Your task to perform on an android device: Clear all items from cart on walmart. Add logitech g pro to the cart on walmart, then select checkout. Image 0: 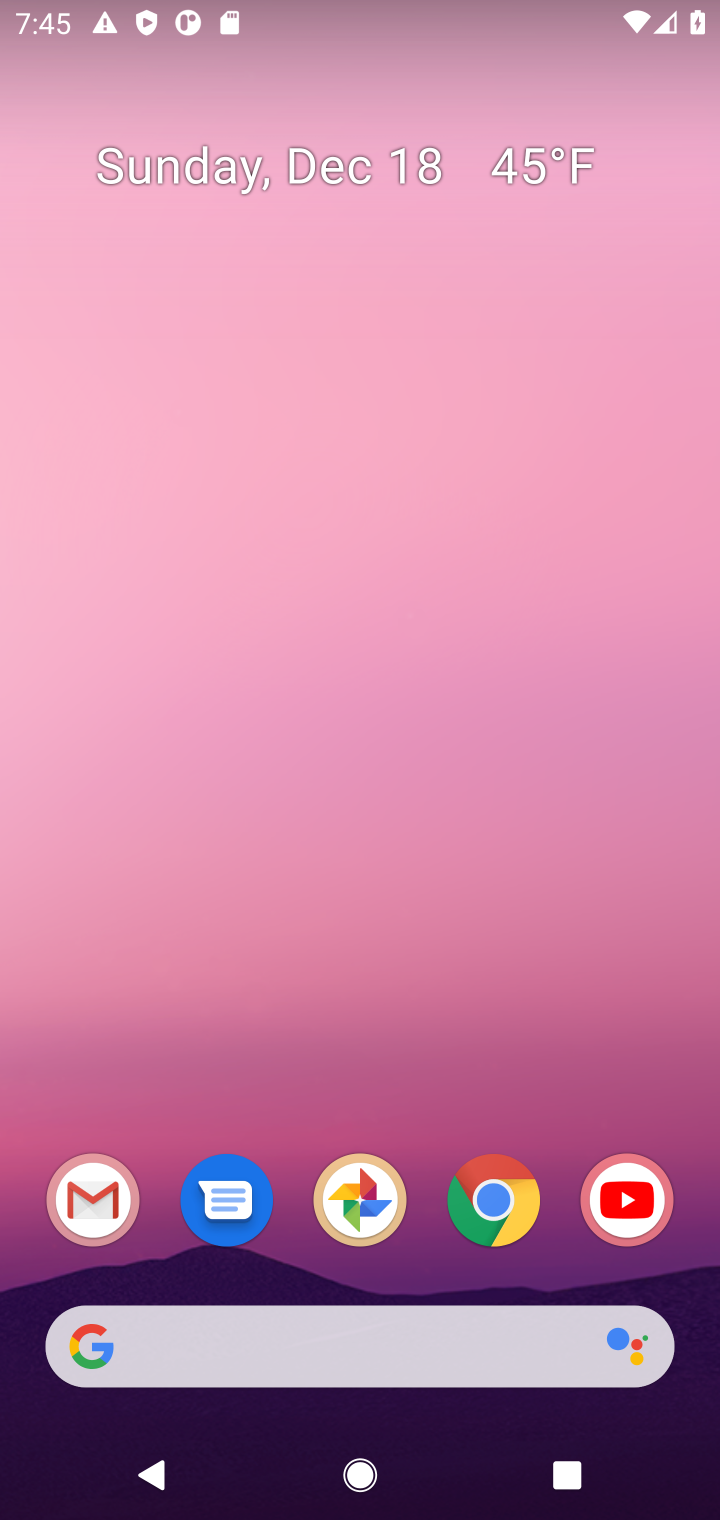
Step 0: click (511, 1207)
Your task to perform on an android device: Clear all items from cart on walmart. Add logitech g pro to the cart on walmart, then select checkout. Image 1: 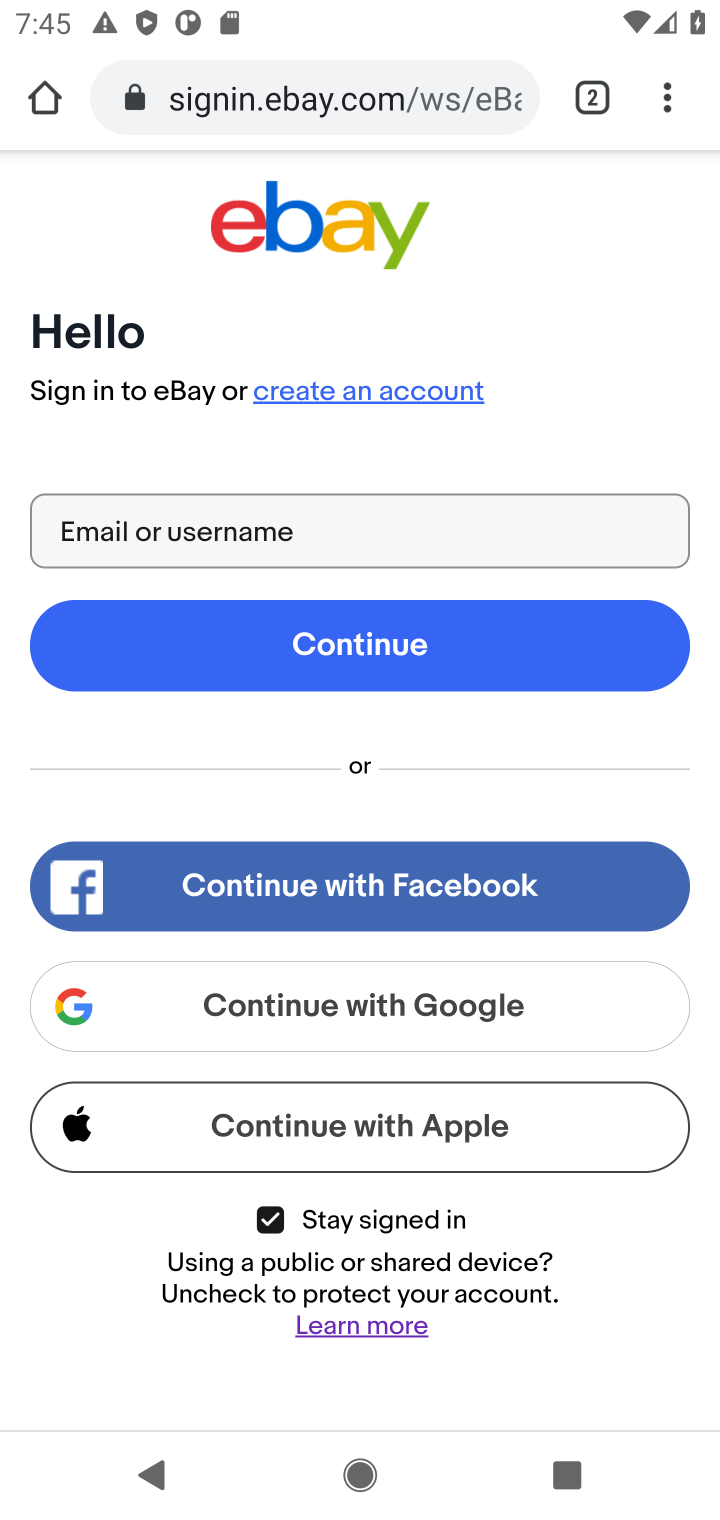
Step 1: click (237, 110)
Your task to perform on an android device: Clear all items from cart on walmart. Add logitech g pro to the cart on walmart, then select checkout. Image 2: 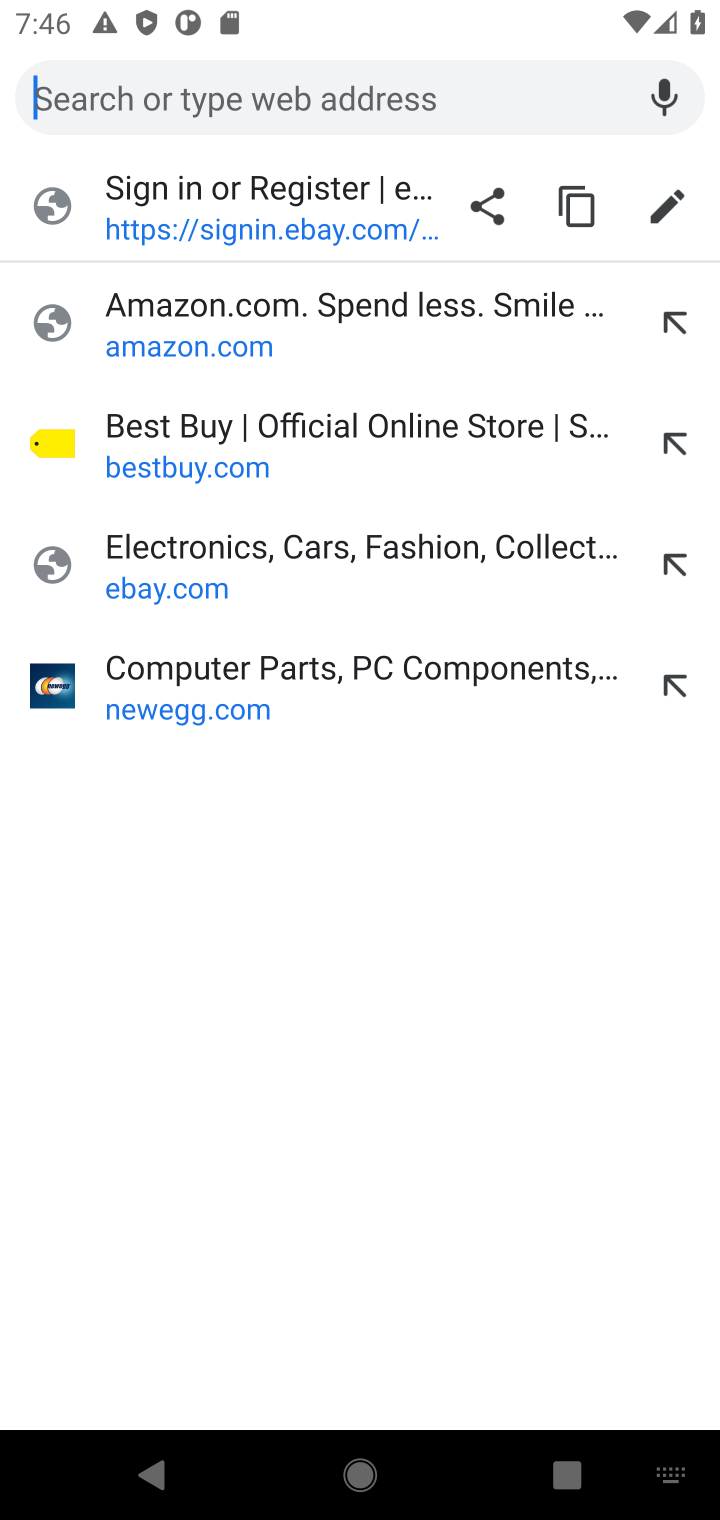
Step 2: type "walmart.com"
Your task to perform on an android device: Clear all items from cart on walmart. Add logitech g pro to the cart on walmart, then select checkout. Image 3: 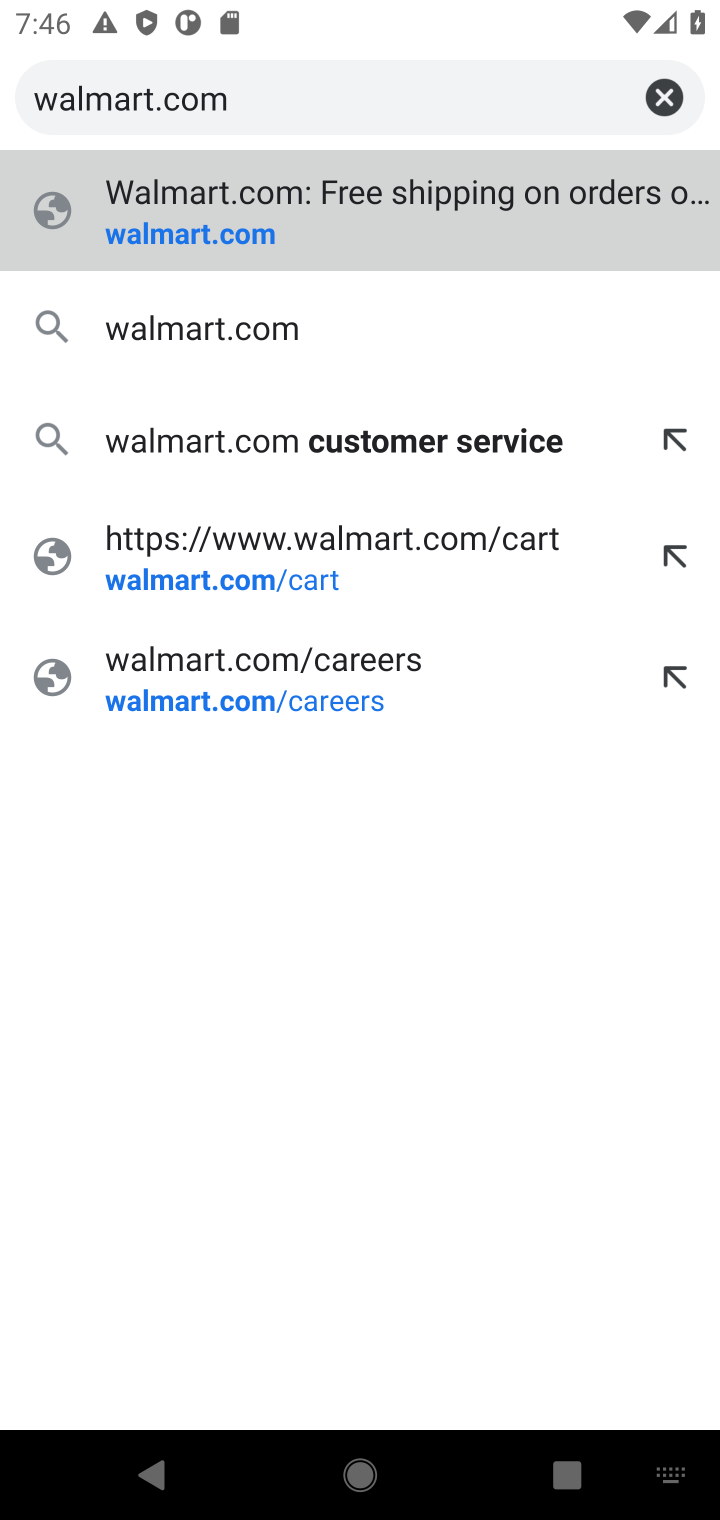
Step 3: click (200, 222)
Your task to perform on an android device: Clear all items from cart on walmart. Add logitech g pro to the cart on walmart, then select checkout. Image 4: 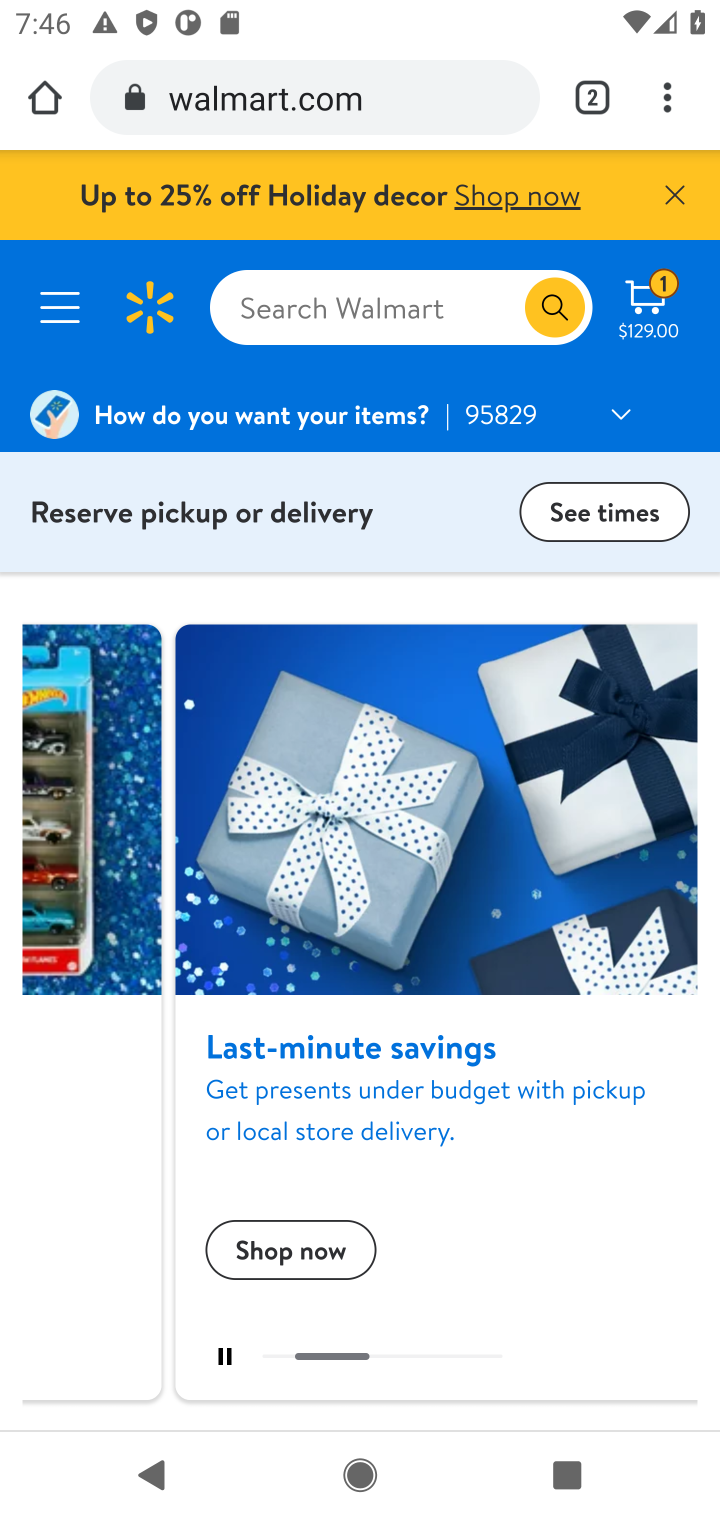
Step 4: click (638, 312)
Your task to perform on an android device: Clear all items from cart on walmart. Add logitech g pro to the cart on walmart, then select checkout. Image 5: 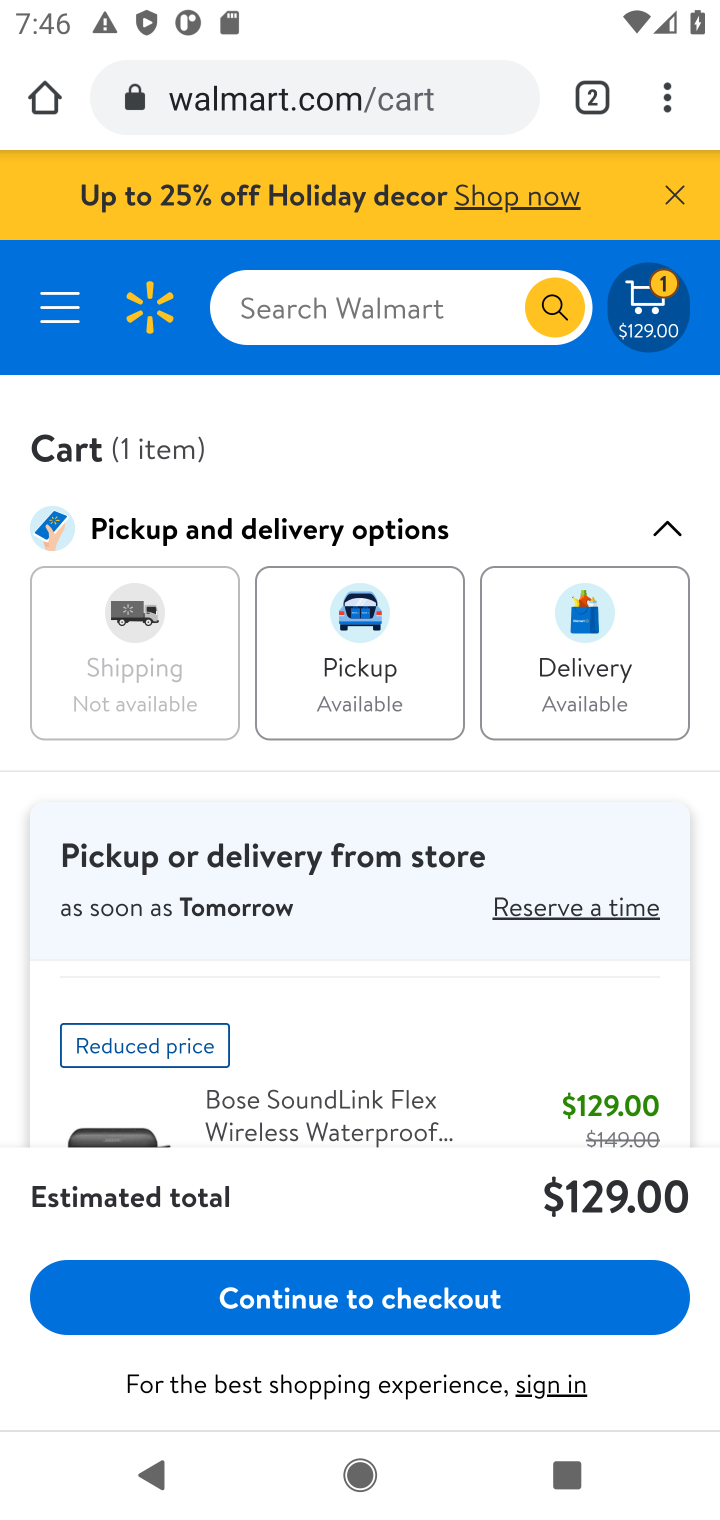
Step 5: drag from (362, 932) to (297, 518)
Your task to perform on an android device: Clear all items from cart on walmart. Add logitech g pro to the cart on walmart, then select checkout. Image 6: 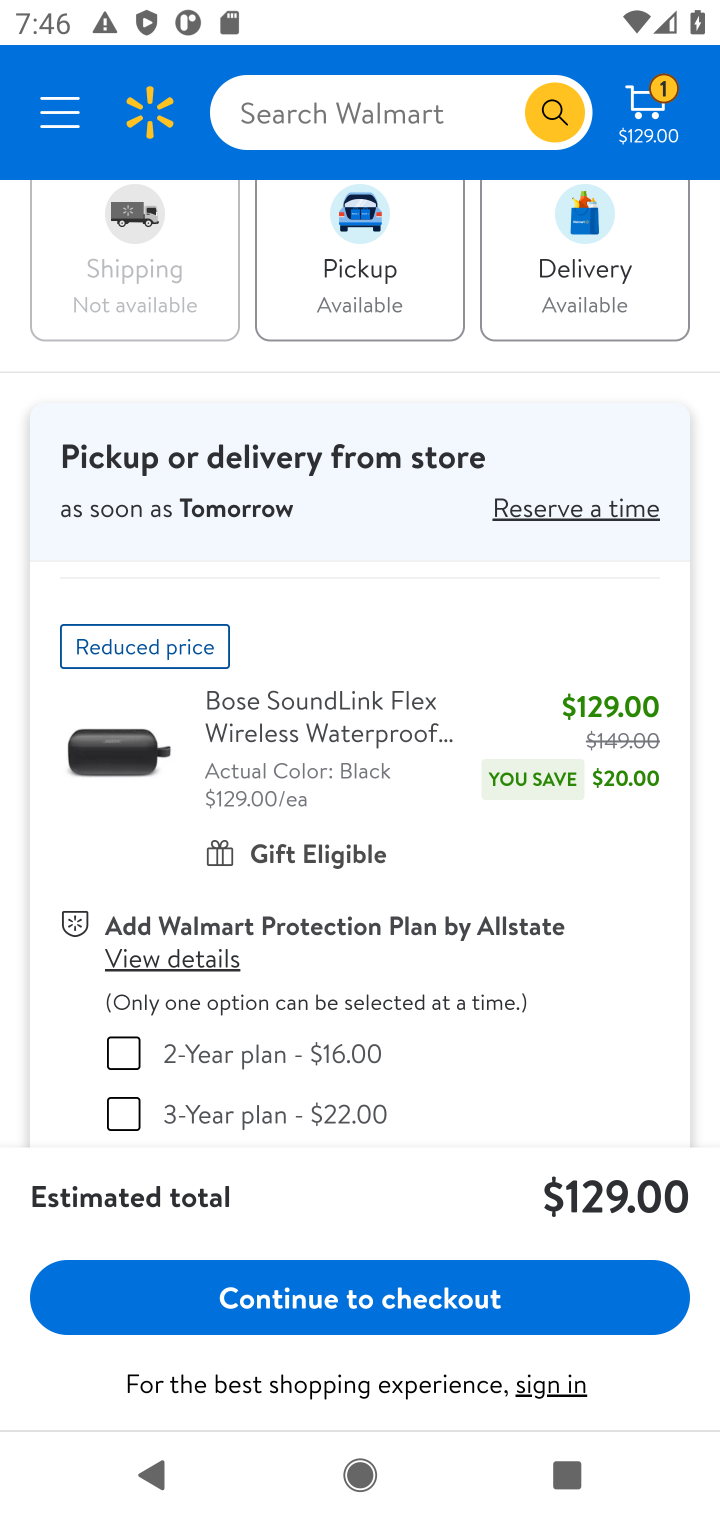
Step 6: drag from (361, 1056) to (261, 446)
Your task to perform on an android device: Clear all items from cart on walmart. Add logitech g pro to the cart on walmart, then select checkout. Image 7: 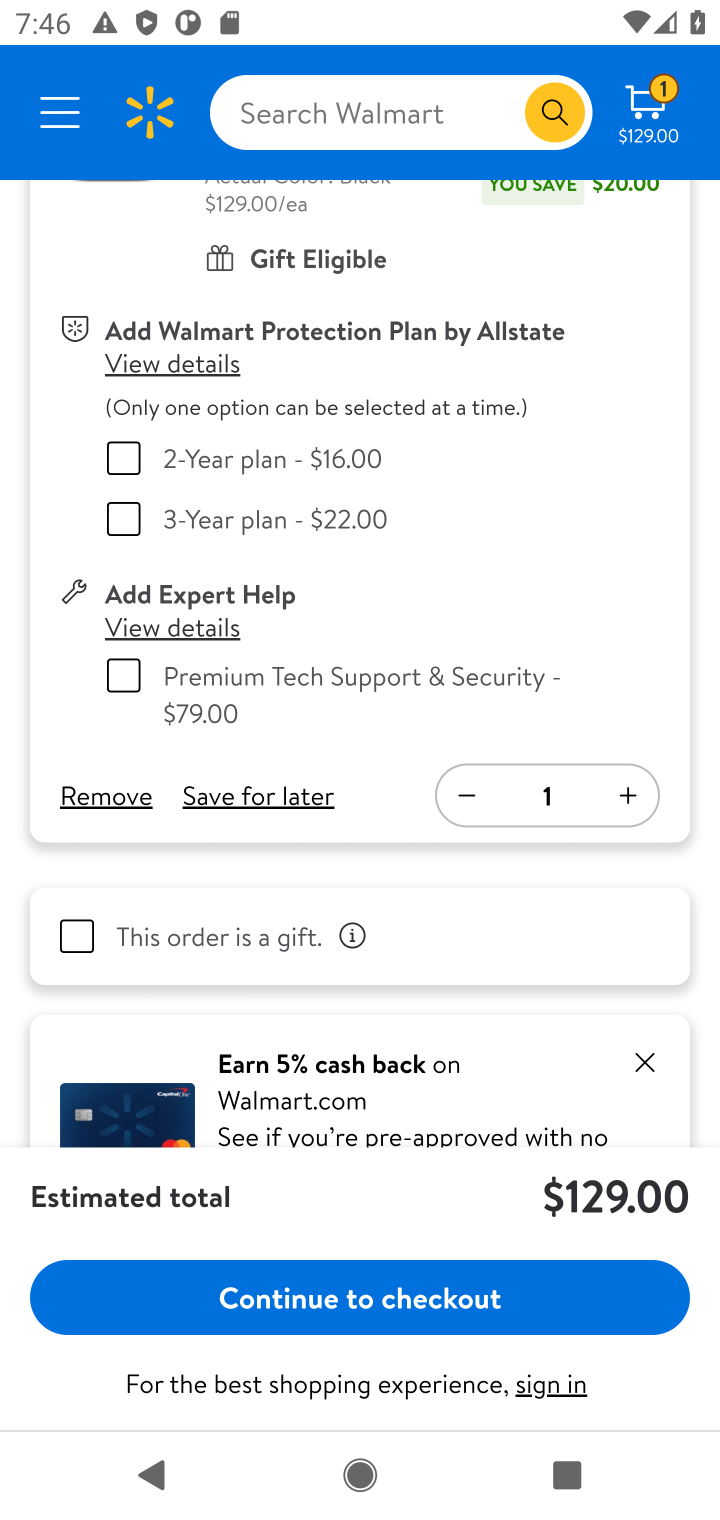
Step 7: click (81, 801)
Your task to perform on an android device: Clear all items from cart on walmart. Add logitech g pro to the cart on walmart, then select checkout. Image 8: 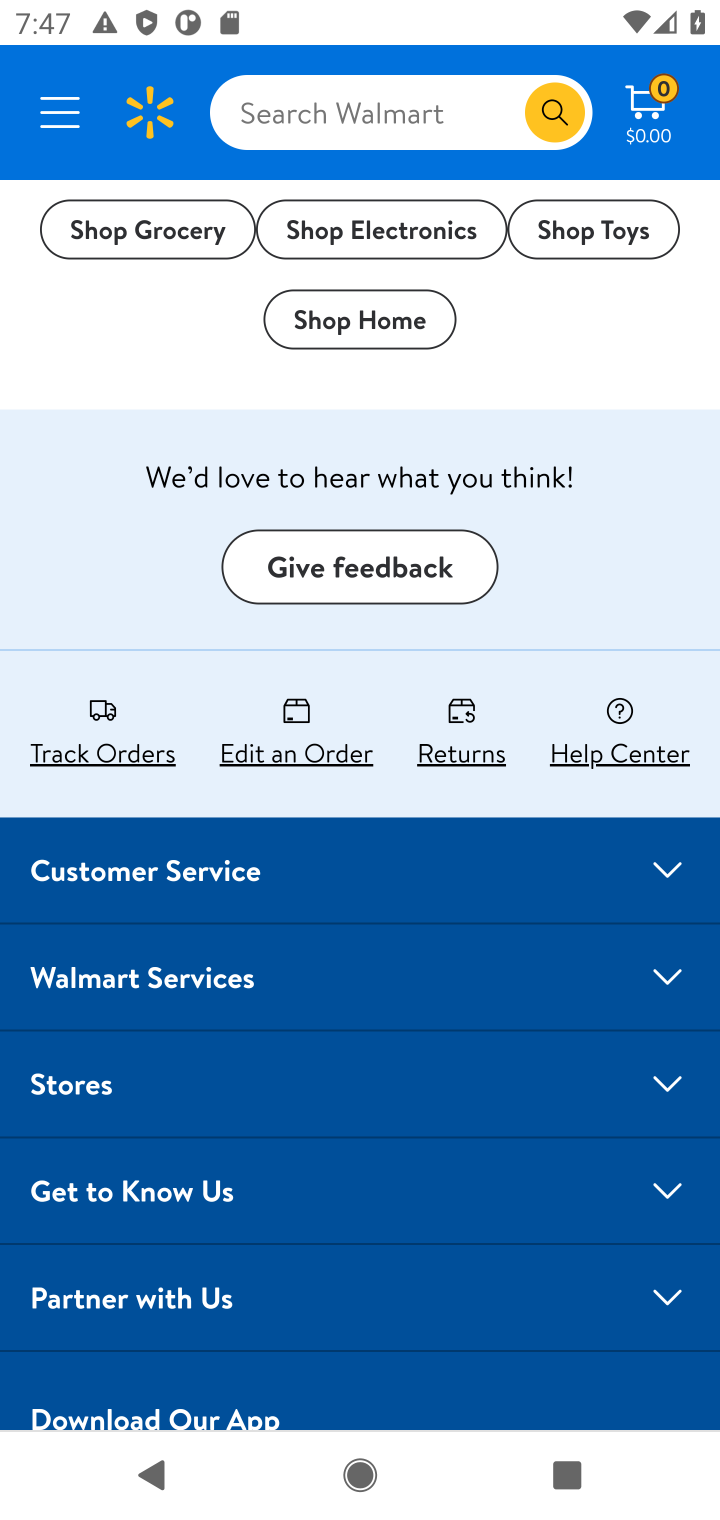
Step 8: drag from (514, 420) to (532, 765)
Your task to perform on an android device: Clear all items from cart on walmart. Add logitech g pro to the cart on walmart, then select checkout. Image 9: 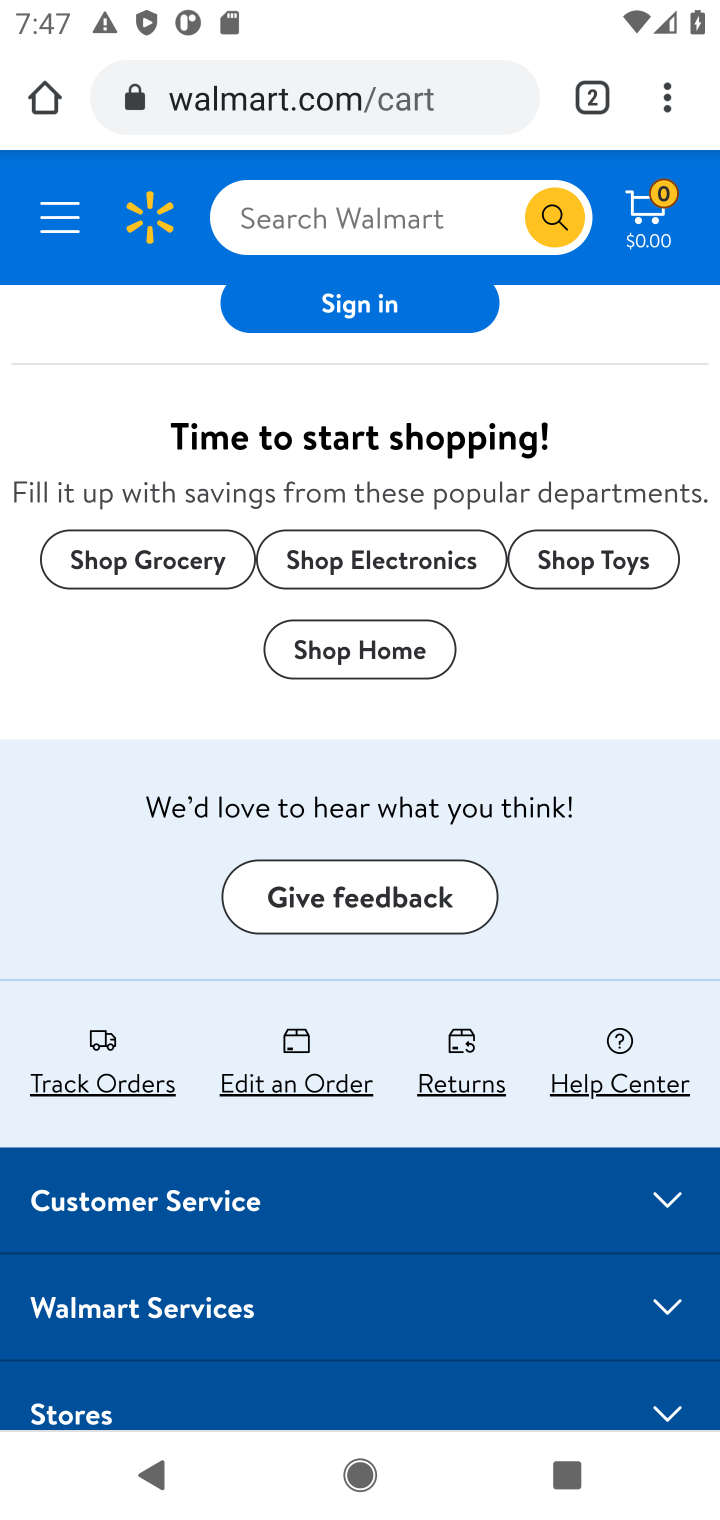
Step 9: click (309, 234)
Your task to perform on an android device: Clear all items from cart on walmart. Add logitech g pro to the cart on walmart, then select checkout. Image 10: 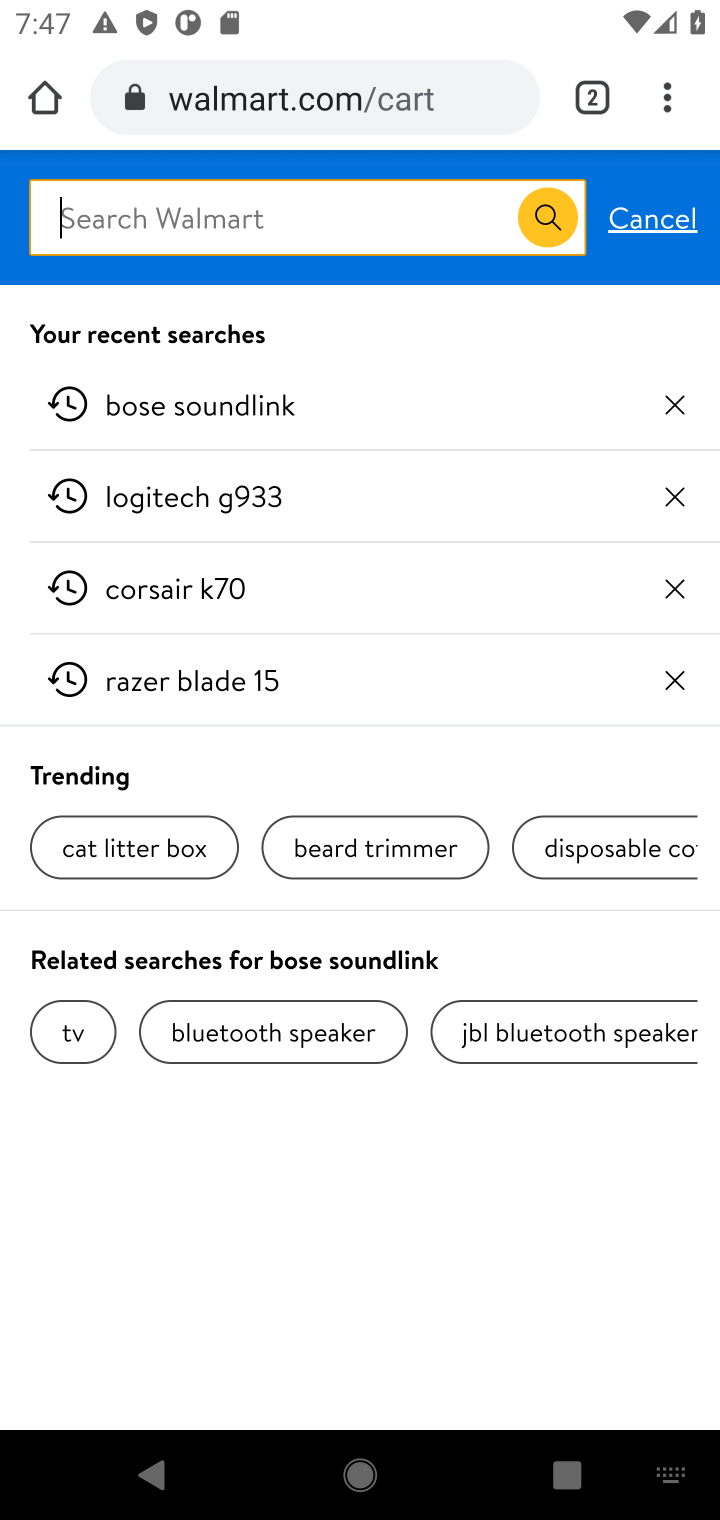
Step 10: type "logitech g pro"
Your task to perform on an android device: Clear all items from cart on walmart. Add logitech g pro to the cart on walmart, then select checkout. Image 11: 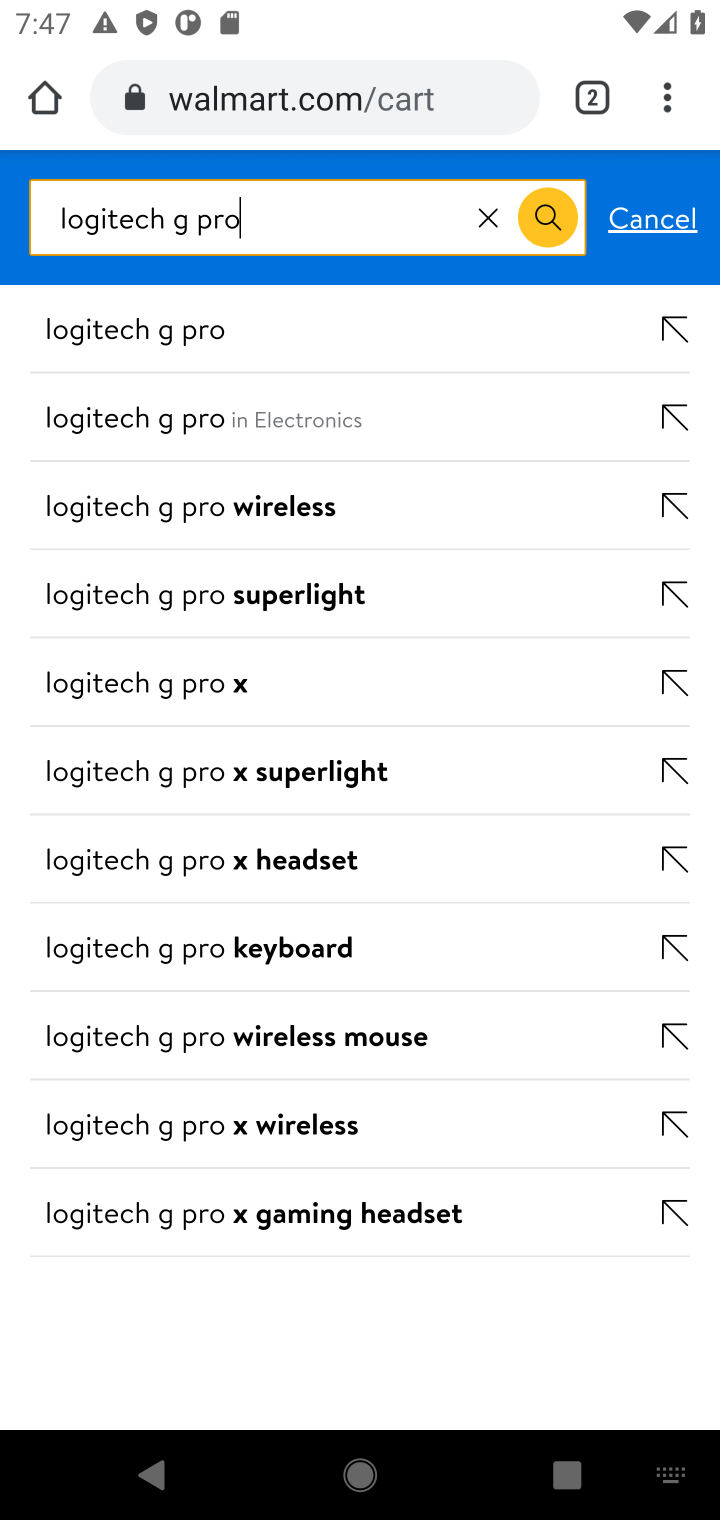
Step 11: click (131, 340)
Your task to perform on an android device: Clear all items from cart on walmart. Add logitech g pro to the cart on walmart, then select checkout. Image 12: 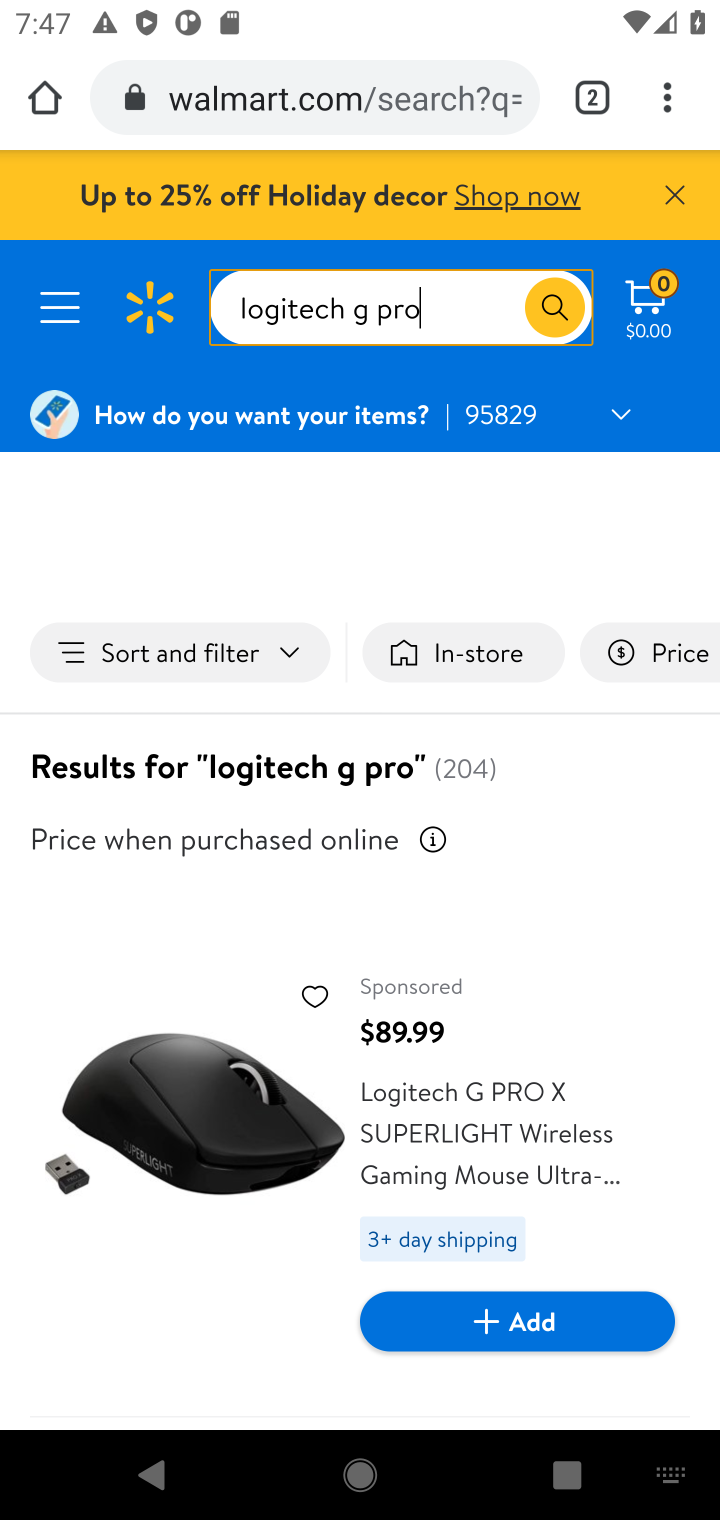
Step 12: drag from (270, 1108) to (325, 512)
Your task to perform on an android device: Clear all items from cart on walmart. Add logitech g pro to the cart on walmart, then select checkout. Image 13: 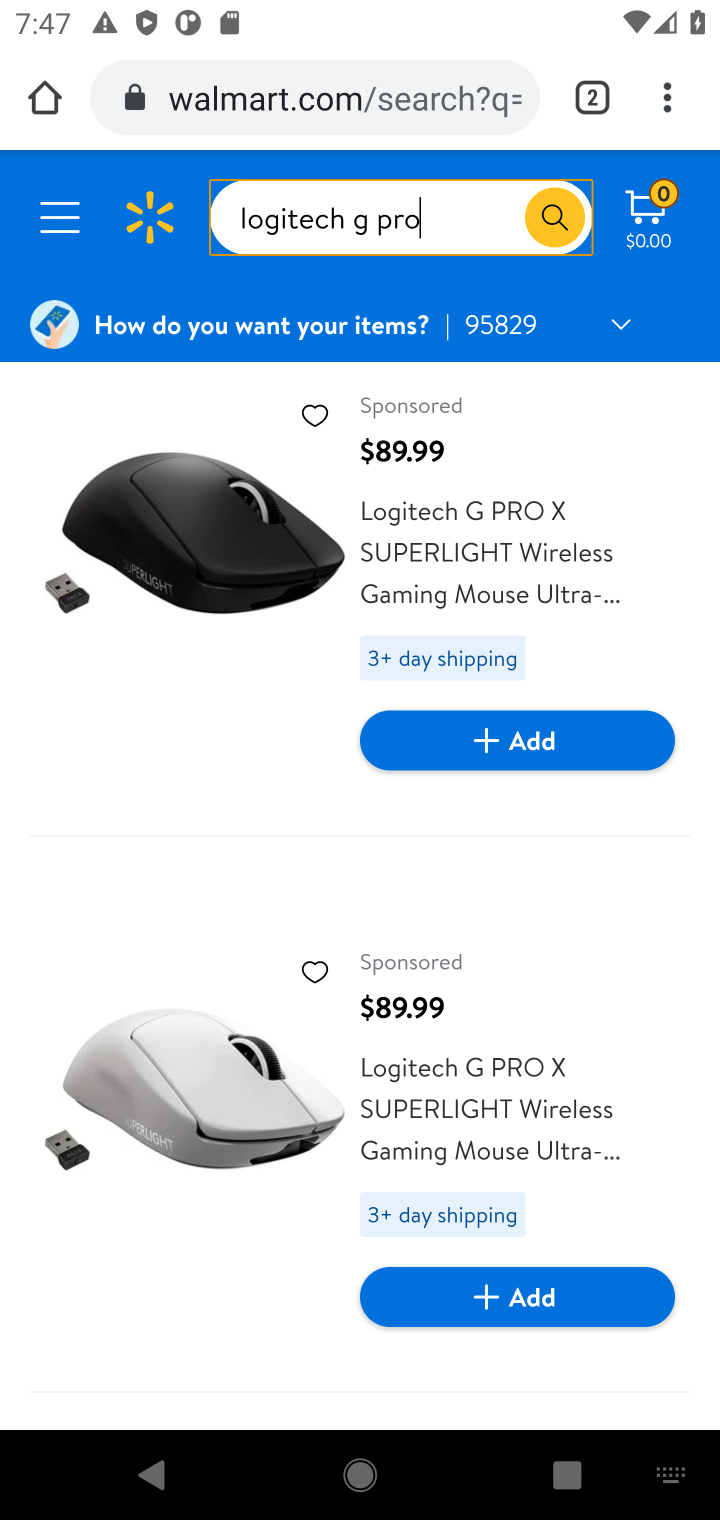
Step 13: click (499, 757)
Your task to perform on an android device: Clear all items from cart on walmart. Add logitech g pro to the cart on walmart, then select checkout. Image 14: 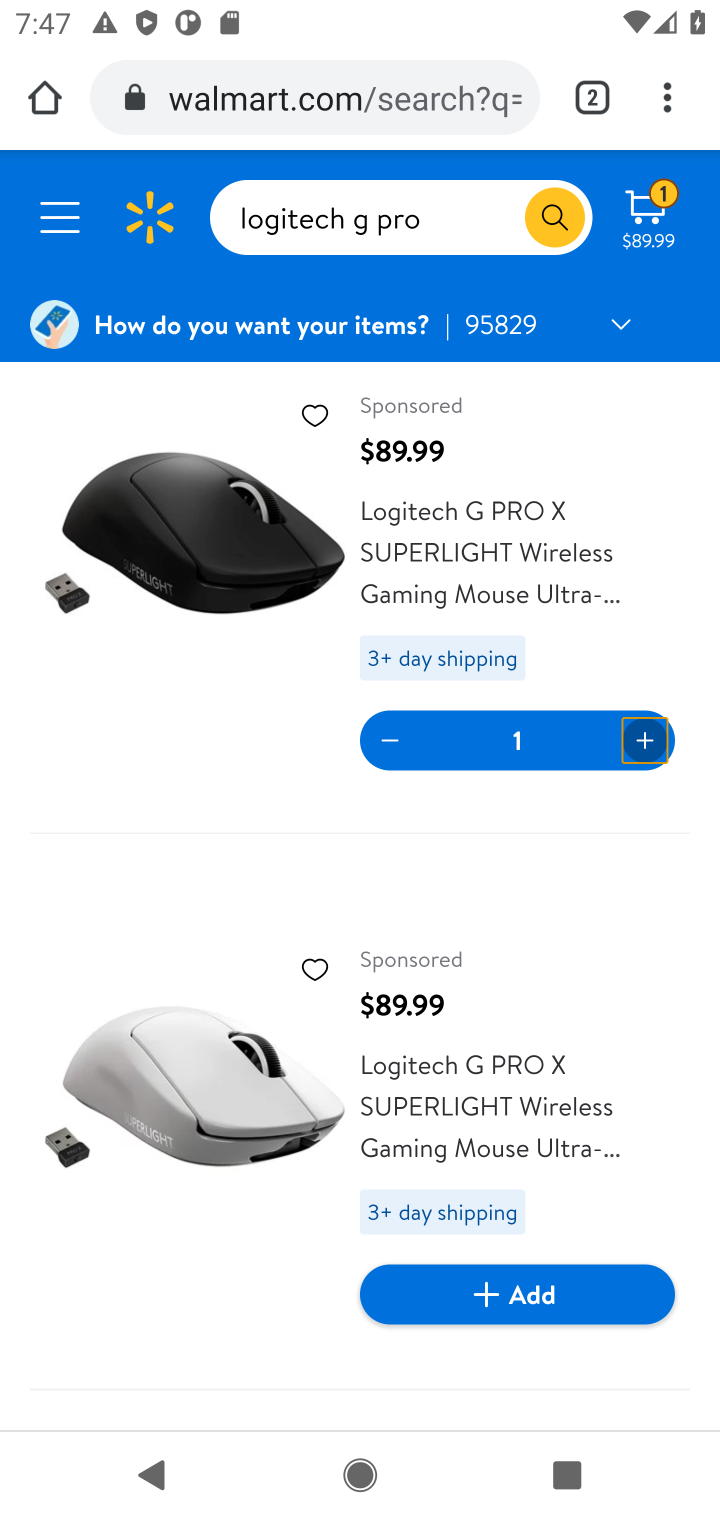
Step 14: click (660, 223)
Your task to perform on an android device: Clear all items from cart on walmart. Add logitech g pro to the cart on walmart, then select checkout. Image 15: 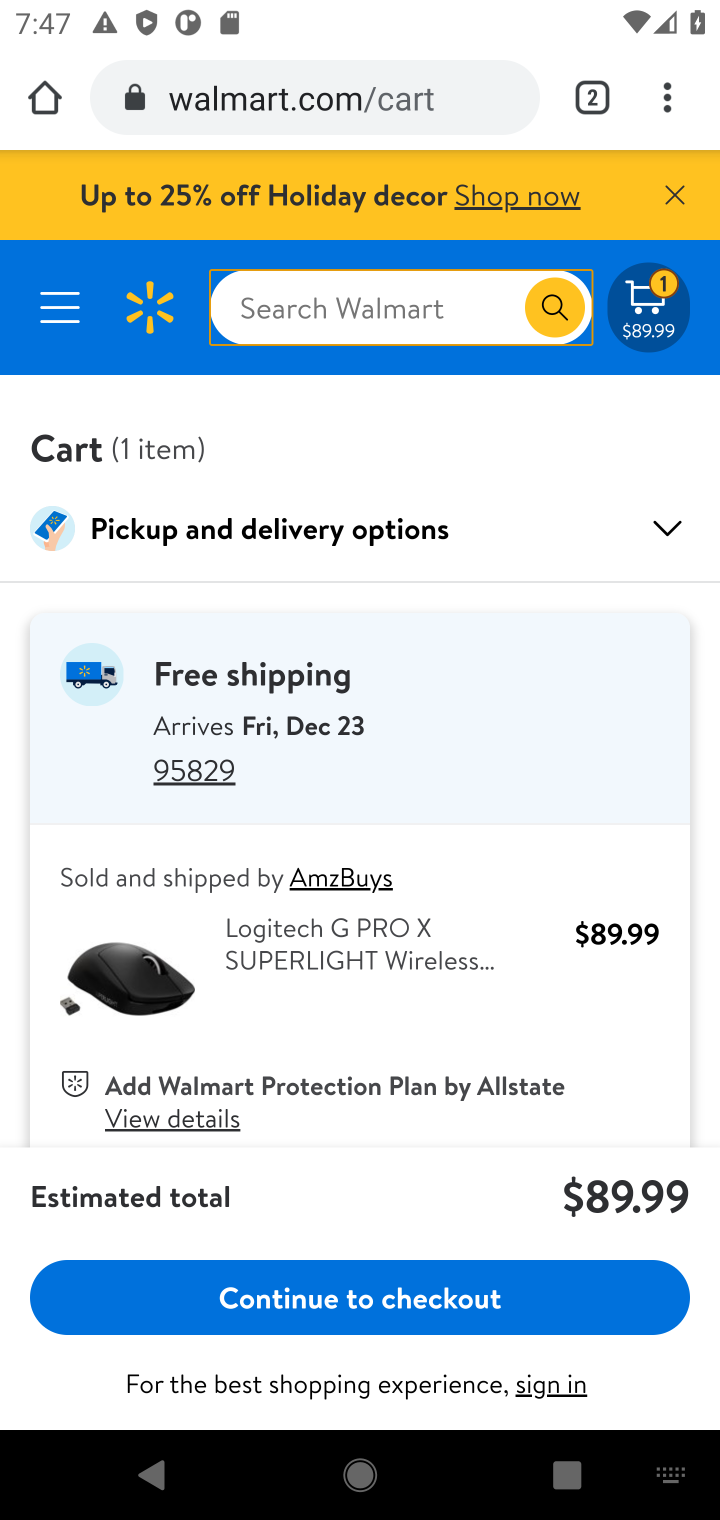
Step 15: click (338, 1314)
Your task to perform on an android device: Clear all items from cart on walmart. Add logitech g pro to the cart on walmart, then select checkout. Image 16: 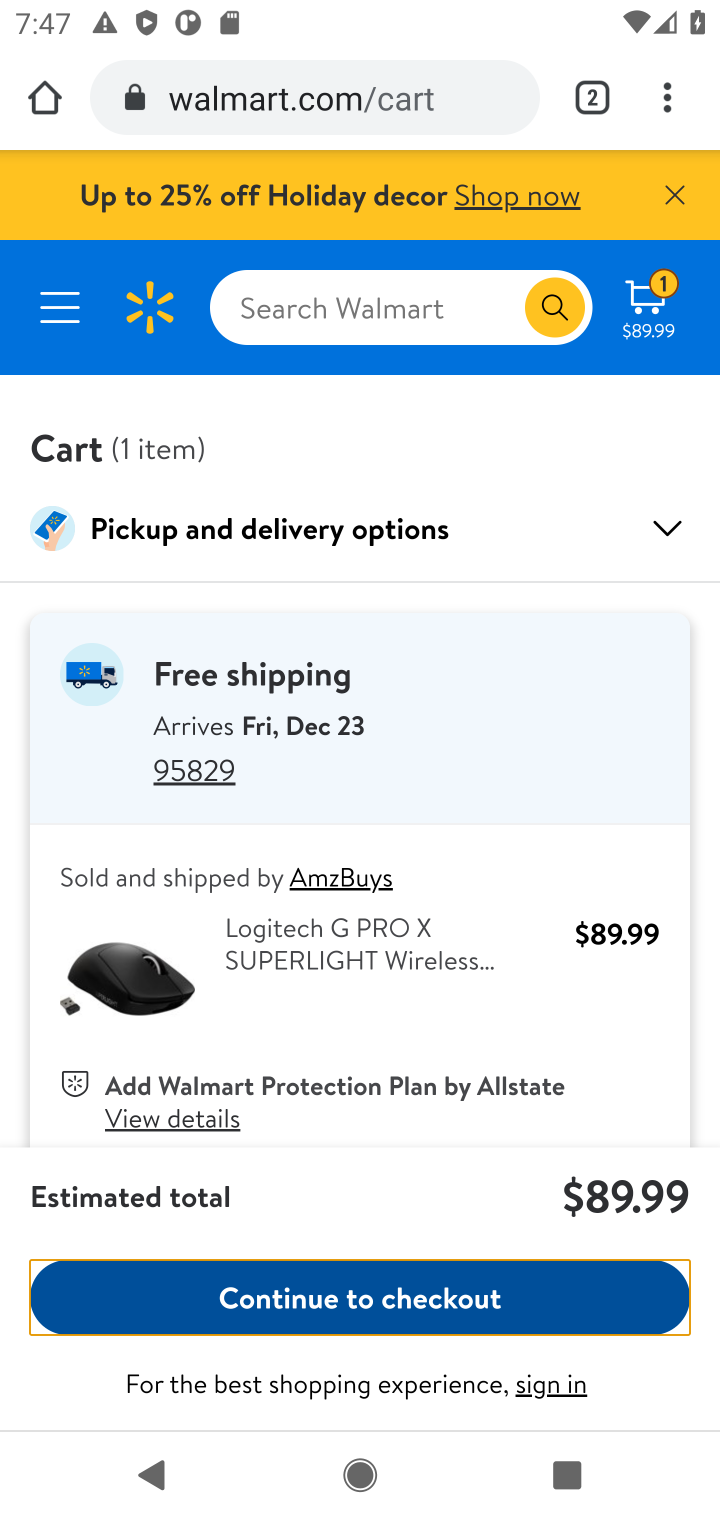
Step 16: click (440, 1308)
Your task to perform on an android device: Clear all items from cart on walmart. Add logitech g pro to the cart on walmart, then select checkout. Image 17: 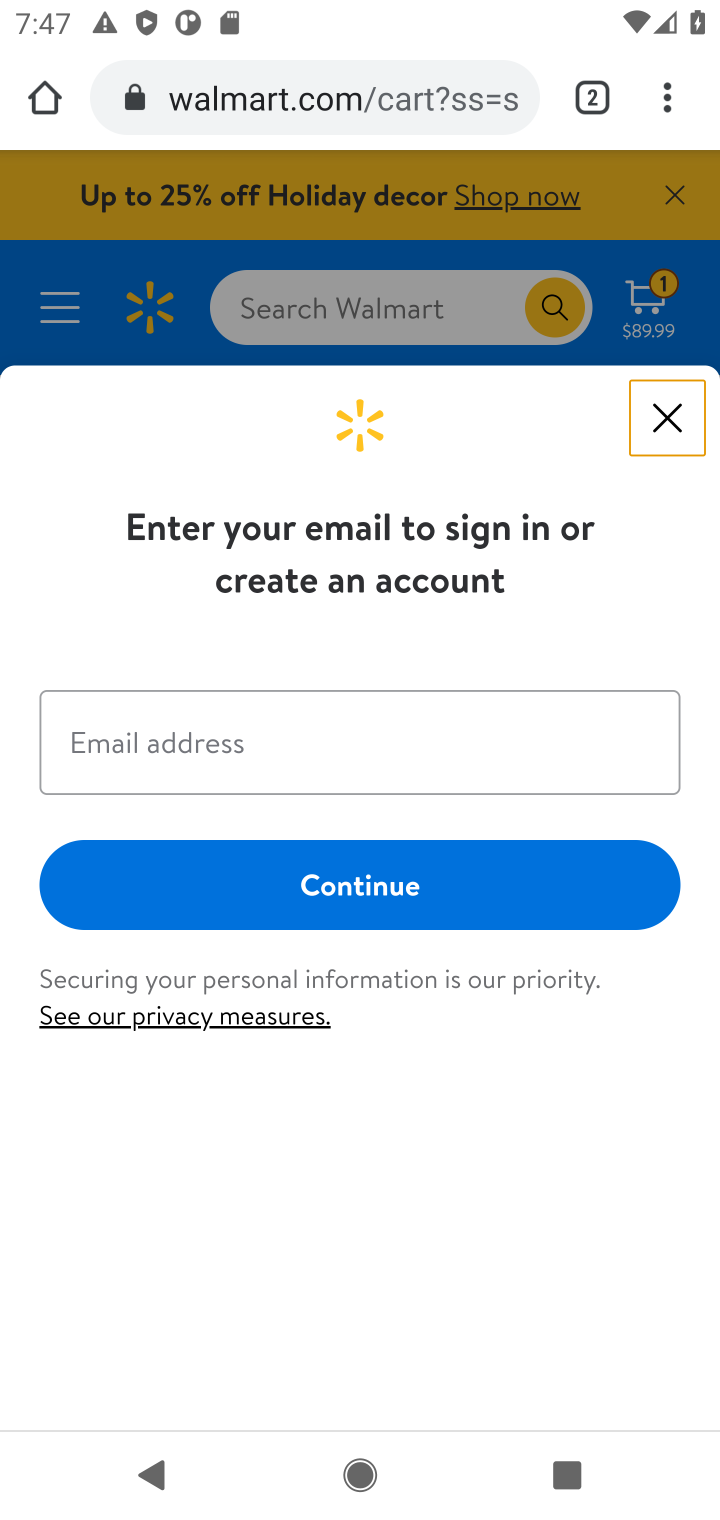
Step 17: task complete